Your task to perform on an android device: turn off sleep mode Image 0: 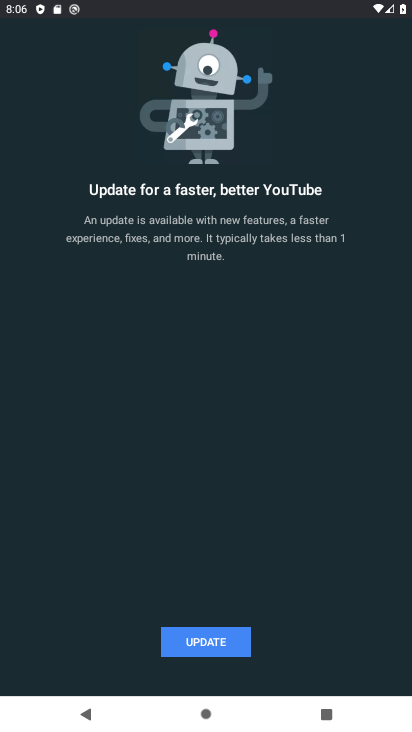
Step 0: press home button
Your task to perform on an android device: turn off sleep mode Image 1: 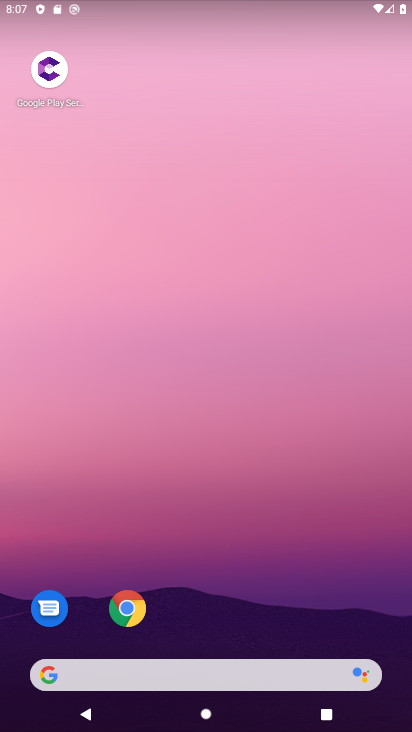
Step 1: drag from (213, 639) to (162, 100)
Your task to perform on an android device: turn off sleep mode Image 2: 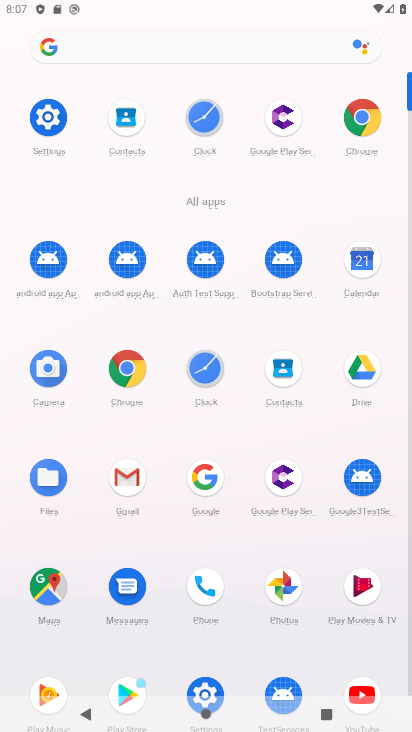
Step 2: click (39, 127)
Your task to perform on an android device: turn off sleep mode Image 3: 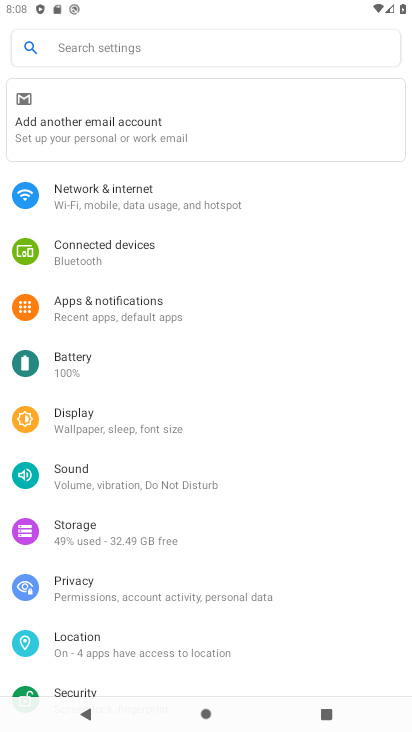
Step 3: task complete